Your task to perform on an android device: Open the web browser Image 0: 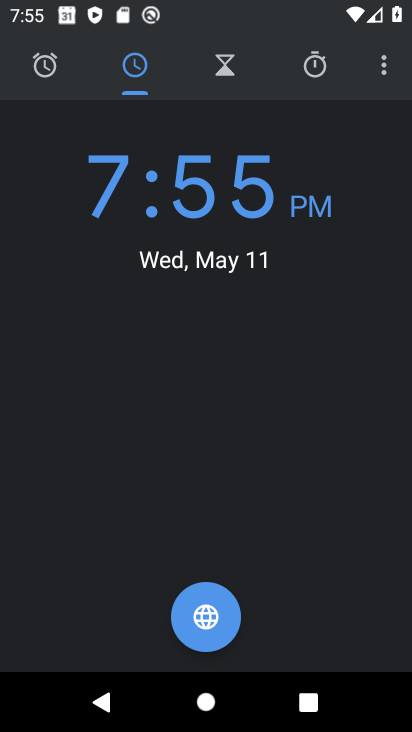
Step 0: press home button
Your task to perform on an android device: Open the web browser Image 1: 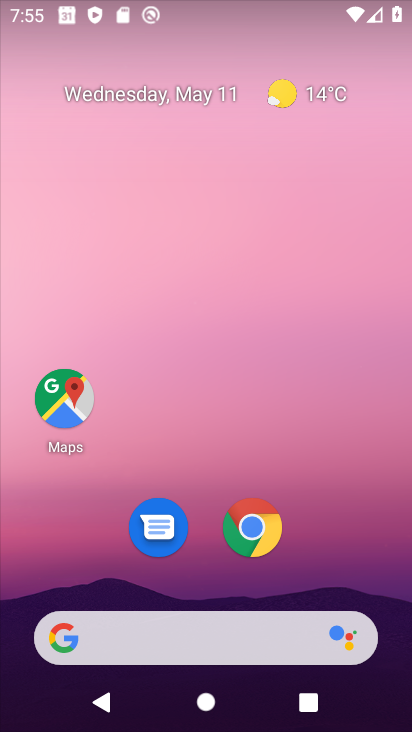
Step 1: click (201, 628)
Your task to perform on an android device: Open the web browser Image 2: 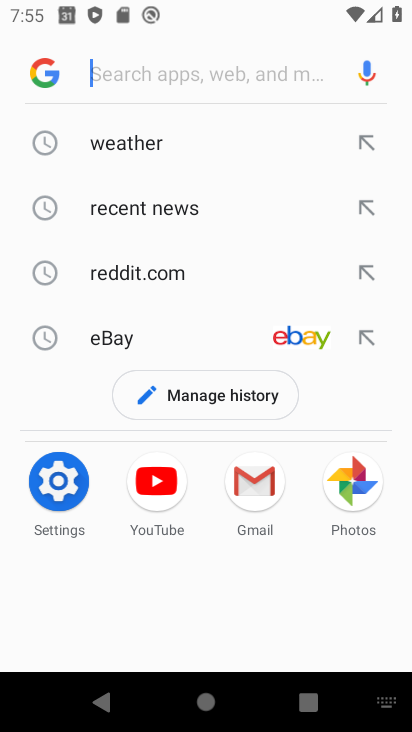
Step 2: task complete